Your task to perform on an android device: visit the assistant section in the google photos Image 0: 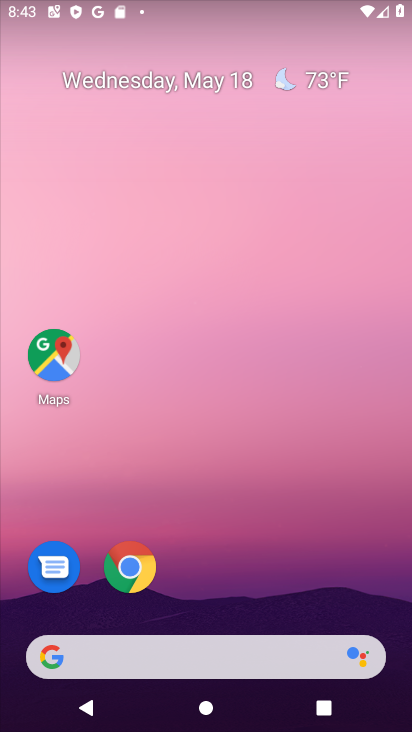
Step 0: drag from (222, 556) to (220, 17)
Your task to perform on an android device: visit the assistant section in the google photos Image 1: 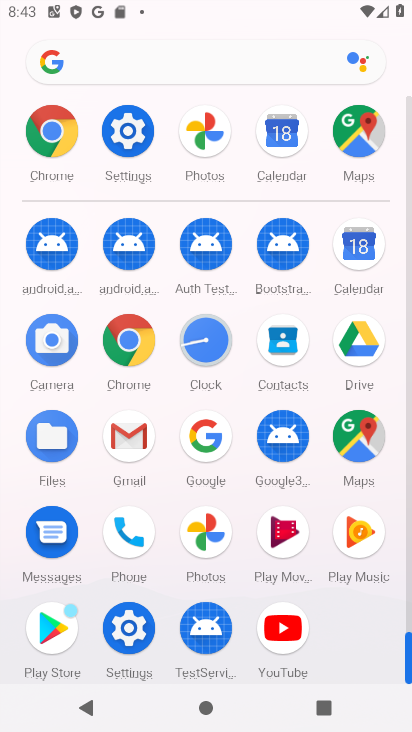
Step 1: click (205, 529)
Your task to perform on an android device: visit the assistant section in the google photos Image 2: 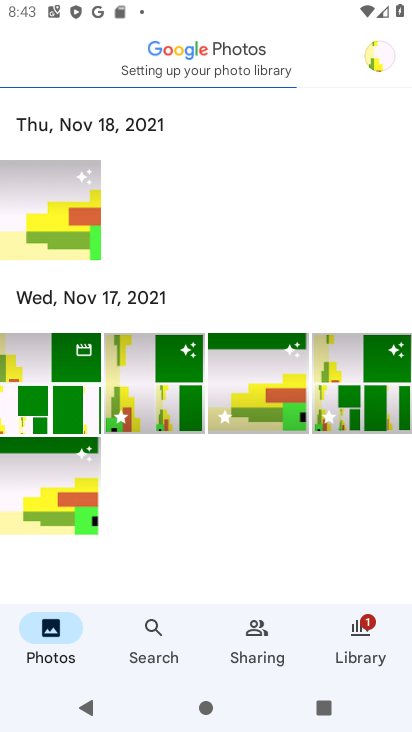
Step 2: task complete